Your task to perform on an android device: Open Wikipedia Image 0: 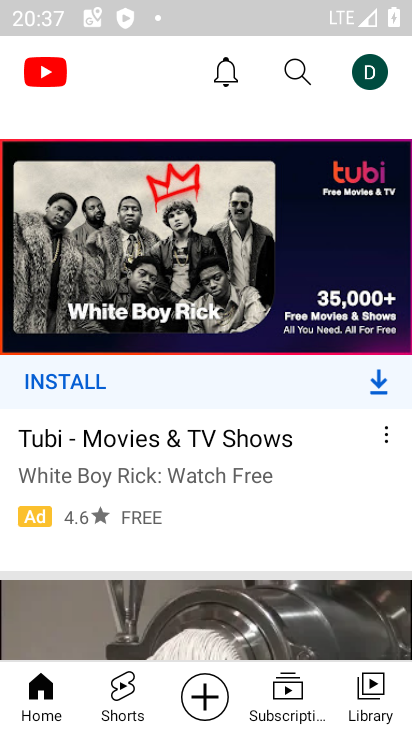
Step 0: press home button
Your task to perform on an android device: Open Wikipedia Image 1: 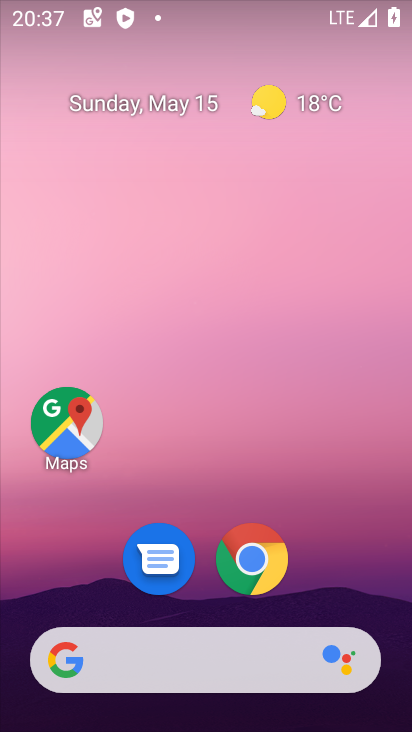
Step 1: click (248, 559)
Your task to perform on an android device: Open Wikipedia Image 2: 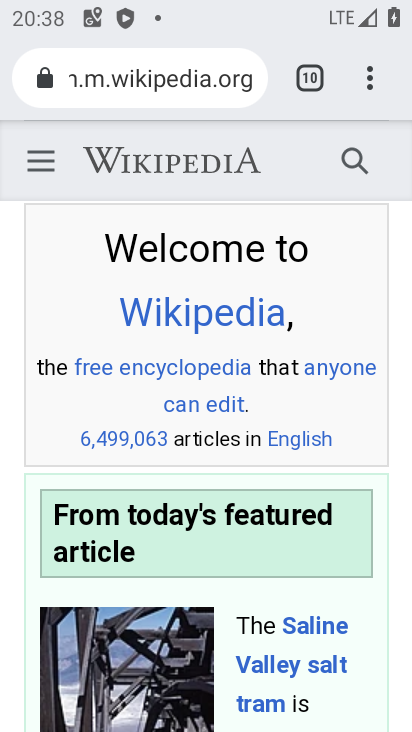
Step 2: task complete